Your task to perform on an android device: Open CNN.com Image 0: 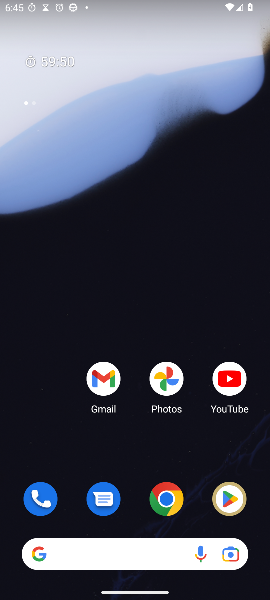
Step 0: drag from (142, 461) to (100, 43)
Your task to perform on an android device: Open CNN.com Image 1: 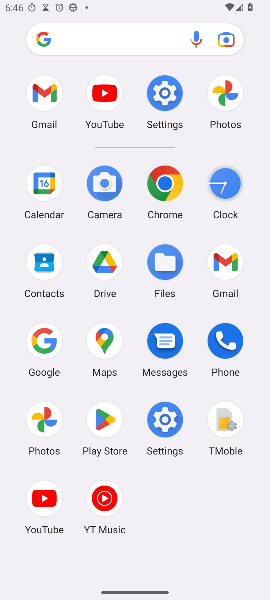
Step 1: click (170, 192)
Your task to perform on an android device: Open CNN.com Image 2: 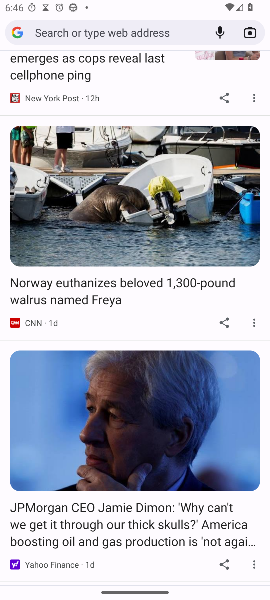
Step 2: drag from (131, 234) to (187, 551)
Your task to perform on an android device: Open CNN.com Image 3: 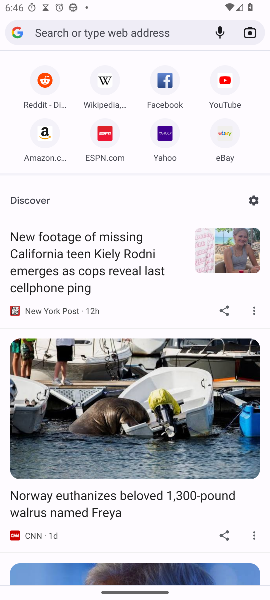
Step 3: drag from (159, 239) to (210, 493)
Your task to perform on an android device: Open CNN.com Image 4: 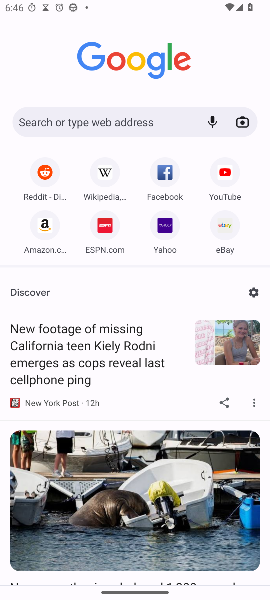
Step 4: click (95, 120)
Your task to perform on an android device: Open CNN.com Image 5: 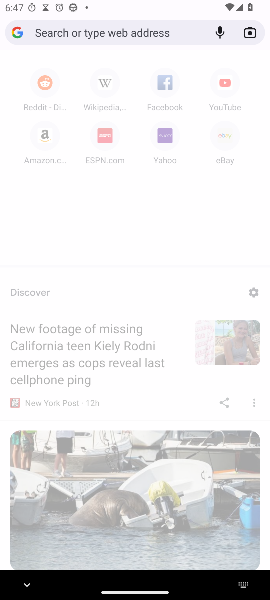
Step 5: type " CNN.com"
Your task to perform on an android device: Open CNN.com Image 6: 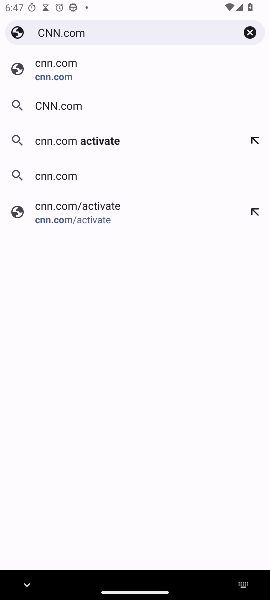
Step 6: click (35, 70)
Your task to perform on an android device: Open CNN.com Image 7: 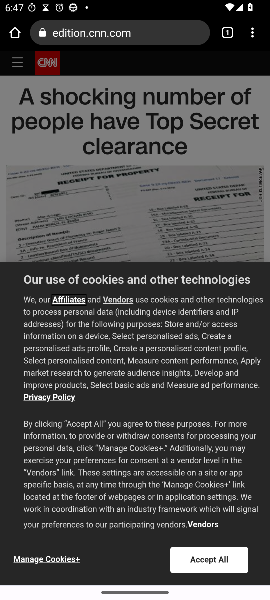
Step 7: task complete